Your task to perform on an android device: Go to Wikipedia Image 0: 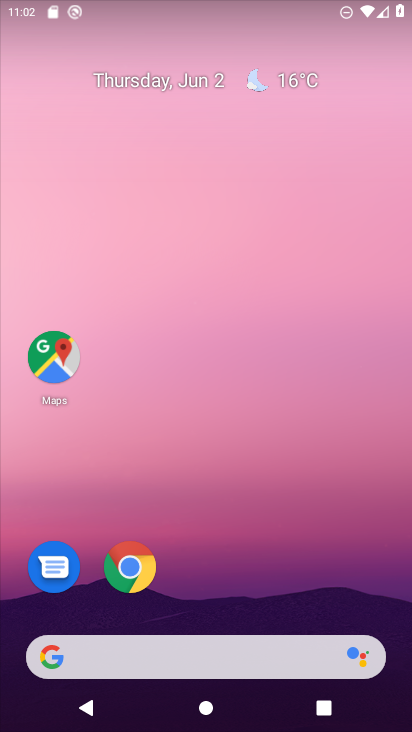
Step 0: click (131, 564)
Your task to perform on an android device: Go to Wikipedia Image 1: 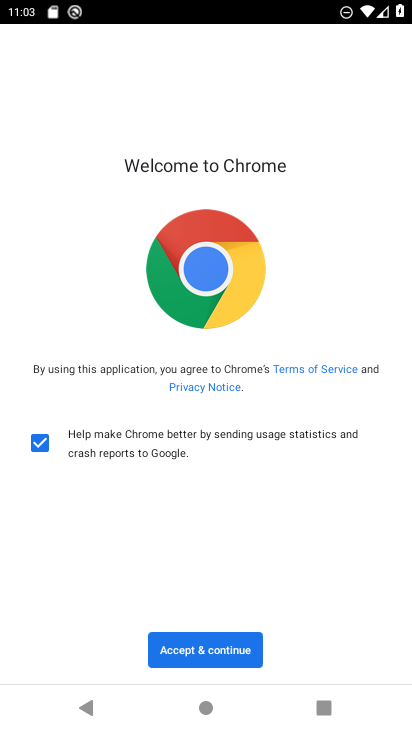
Step 1: click (240, 636)
Your task to perform on an android device: Go to Wikipedia Image 2: 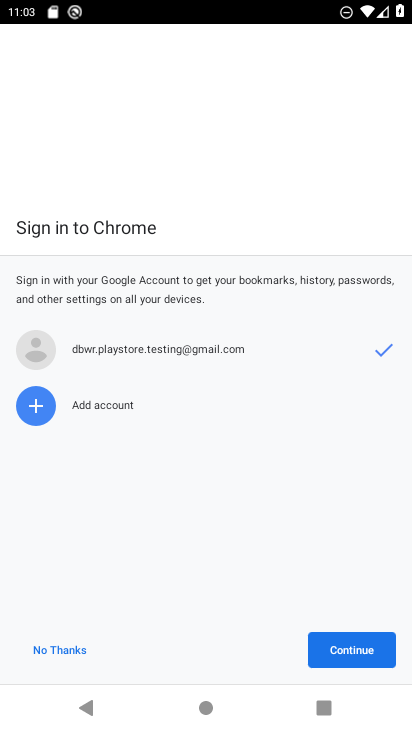
Step 2: click (335, 654)
Your task to perform on an android device: Go to Wikipedia Image 3: 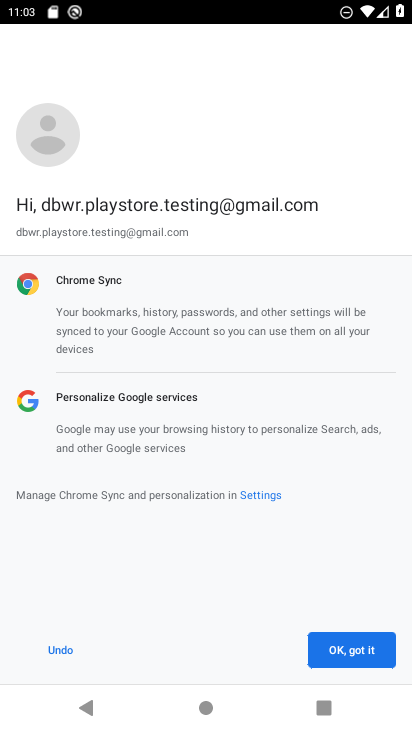
Step 3: click (352, 654)
Your task to perform on an android device: Go to Wikipedia Image 4: 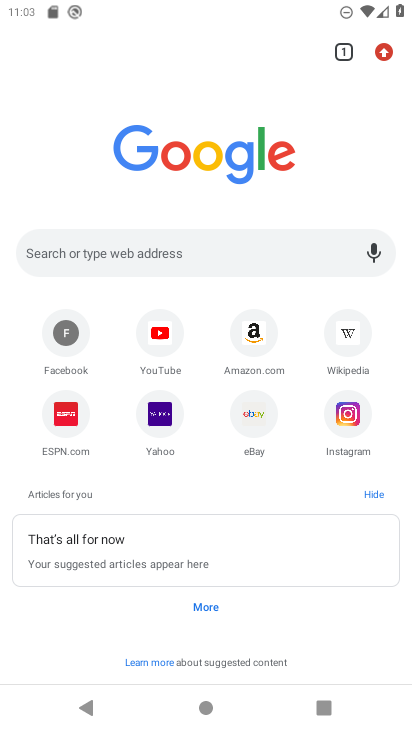
Step 4: click (356, 337)
Your task to perform on an android device: Go to Wikipedia Image 5: 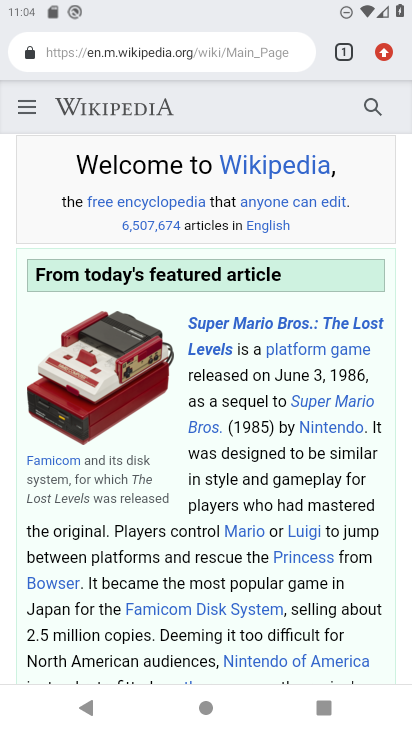
Step 5: task complete